Your task to perform on an android device: change the upload size in google photos Image 0: 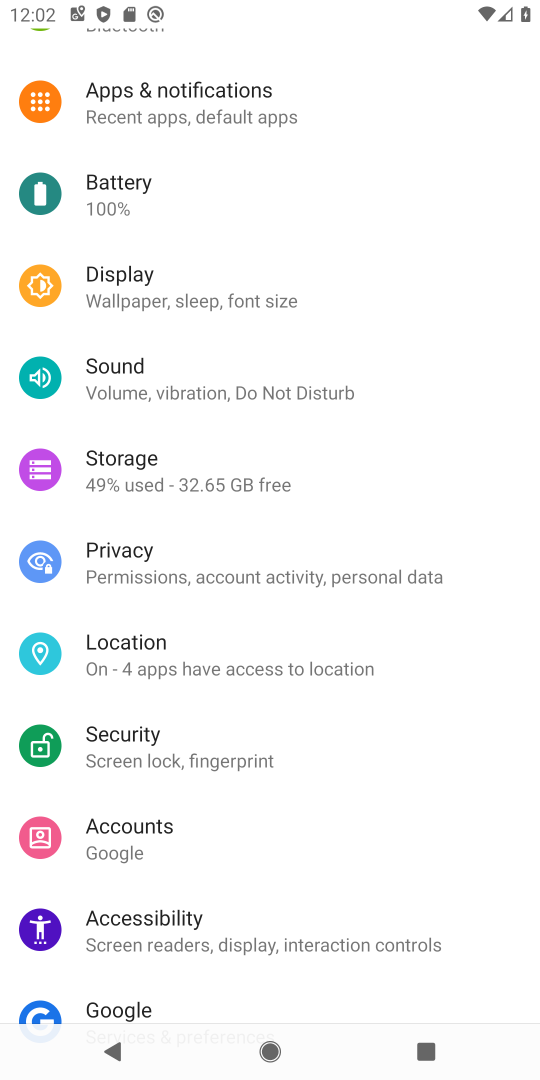
Step 0: press home button
Your task to perform on an android device: change the upload size in google photos Image 1: 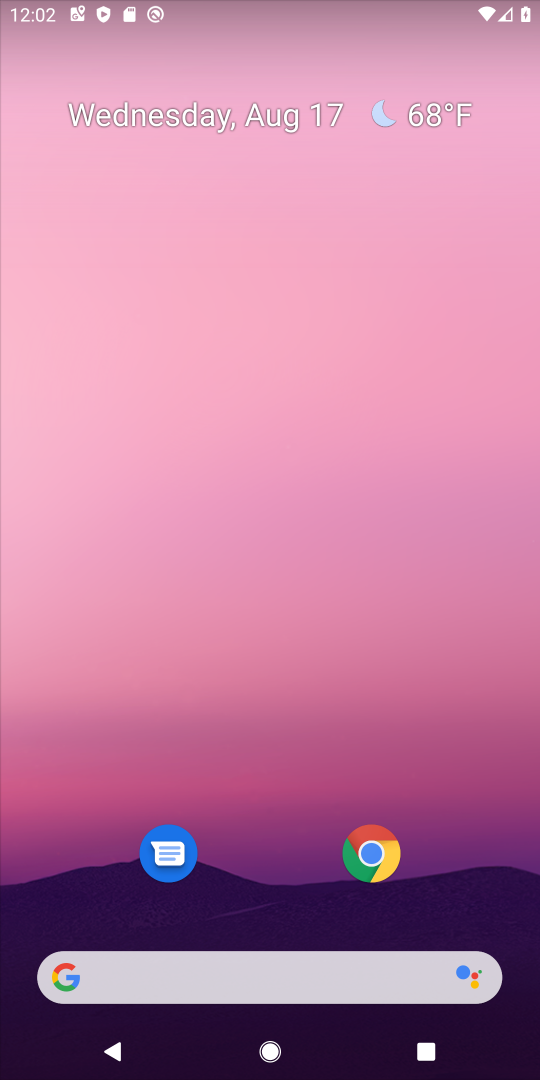
Step 1: drag from (158, 732) to (166, 340)
Your task to perform on an android device: change the upload size in google photos Image 2: 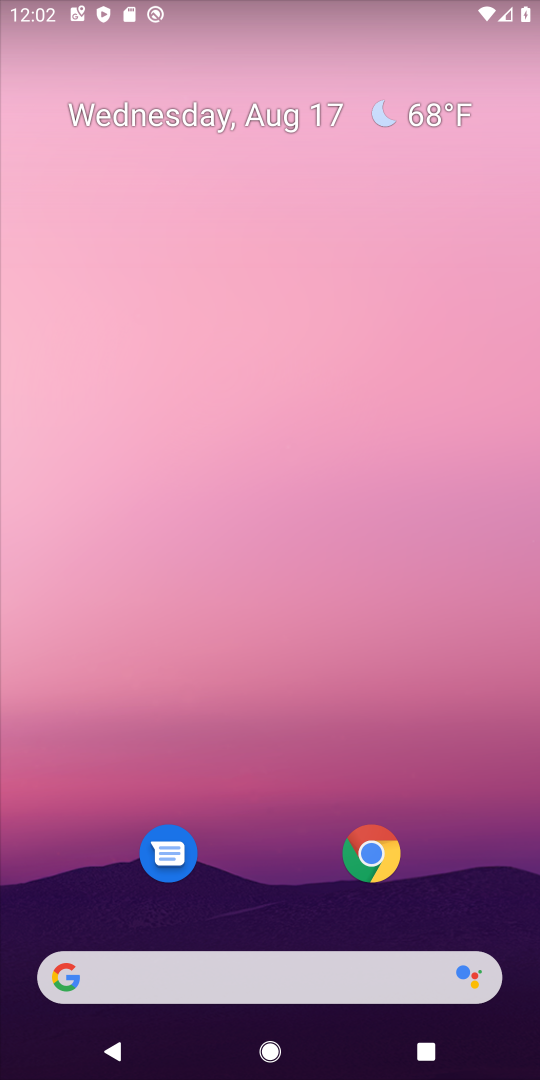
Step 2: drag from (267, 947) to (267, 555)
Your task to perform on an android device: change the upload size in google photos Image 3: 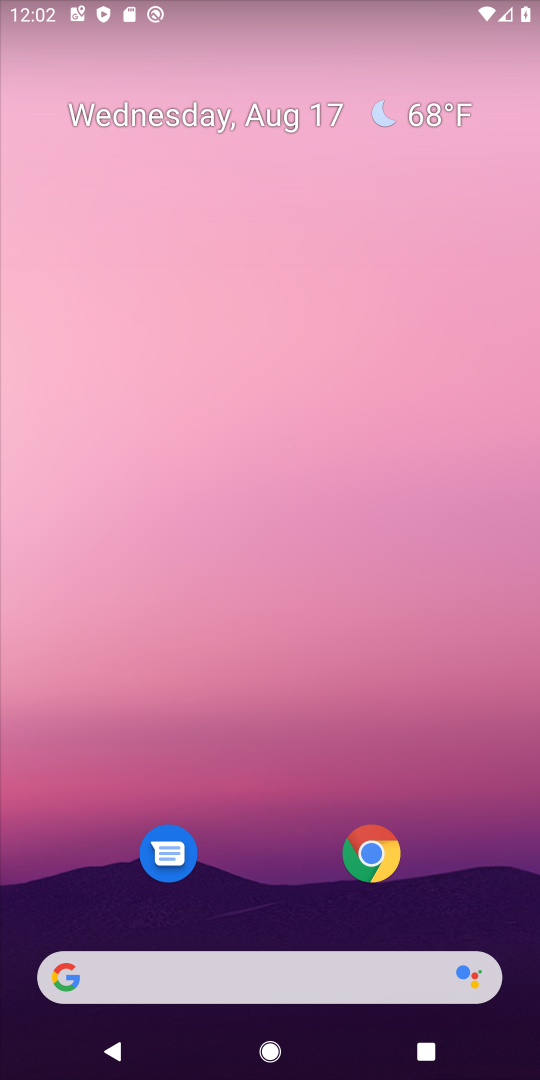
Step 3: drag from (241, 835) to (241, 395)
Your task to perform on an android device: change the upload size in google photos Image 4: 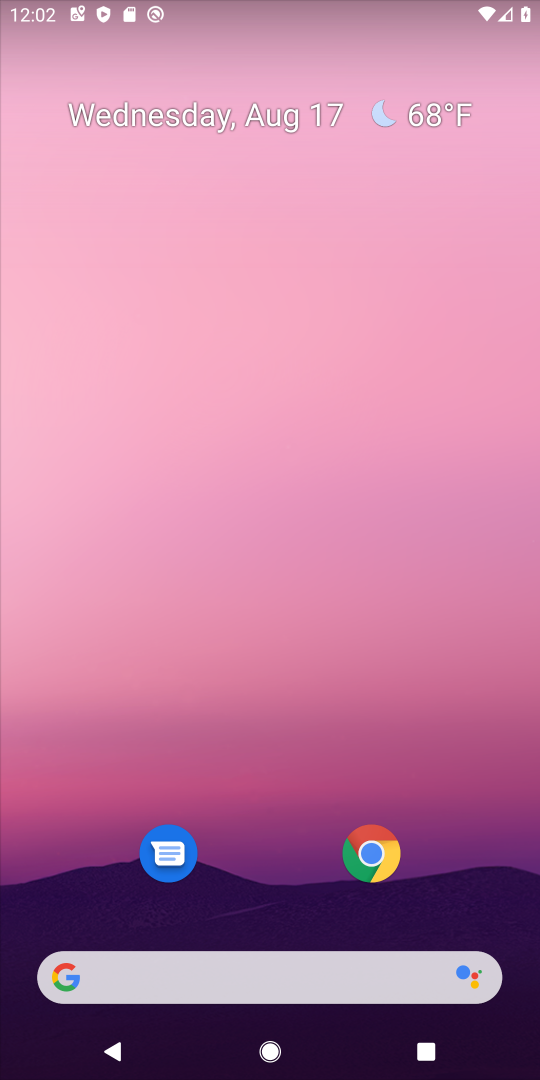
Step 4: drag from (228, 914) to (227, 226)
Your task to perform on an android device: change the upload size in google photos Image 5: 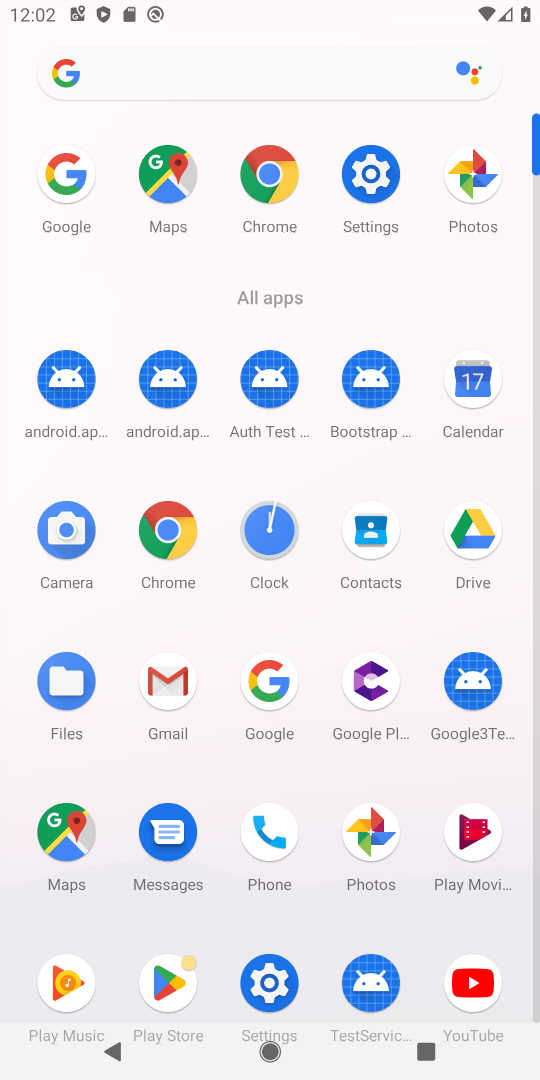
Step 5: click (381, 834)
Your task to perform on an android device: change the upload size in google photos Image 6: 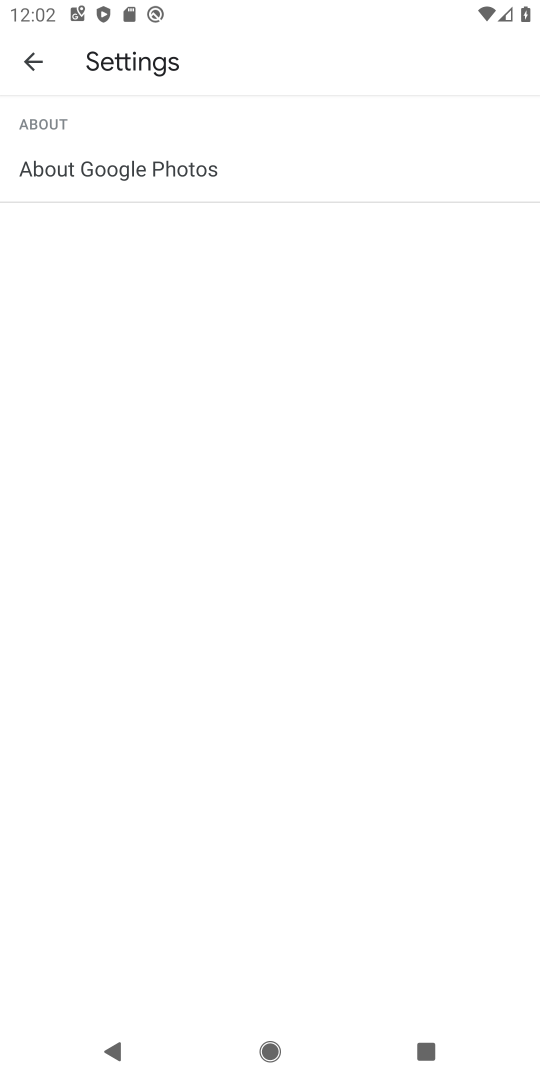
Step 6: click (24, 65)
Your task to perform on an android device: change the upload size in google photos Image 7: 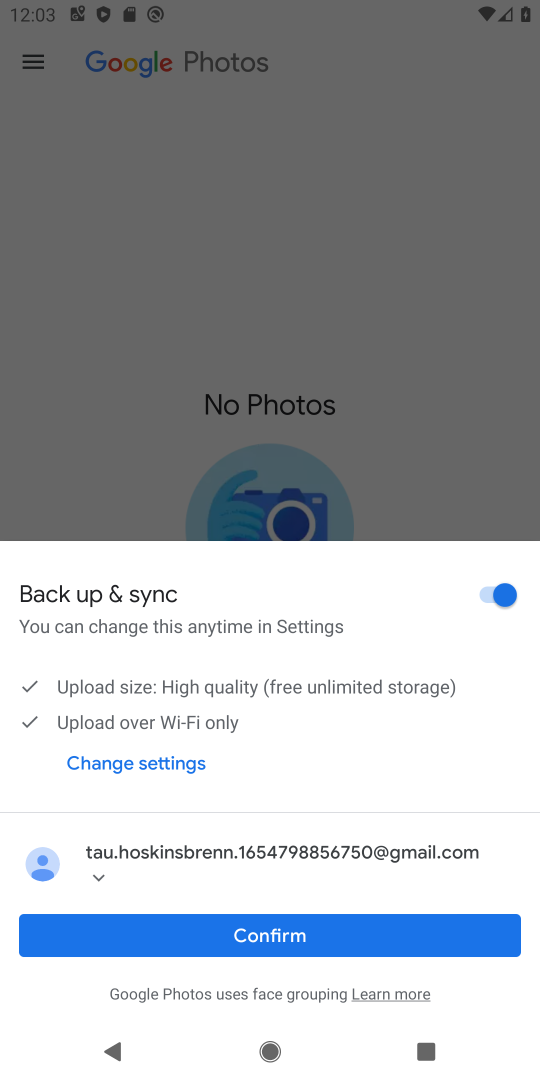
Step 7: click (189, 942)
Your task to perform on an android device: change the upload size in google photos Image 8: 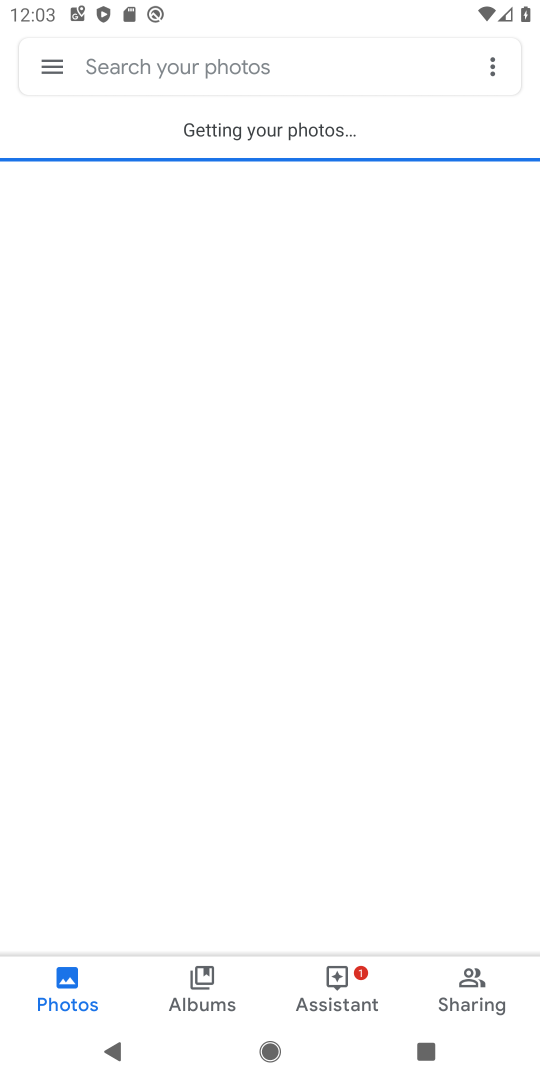
Step 8: click (46, 59)
Your task to perform on an android device: change the upload size in google photos Image 9: 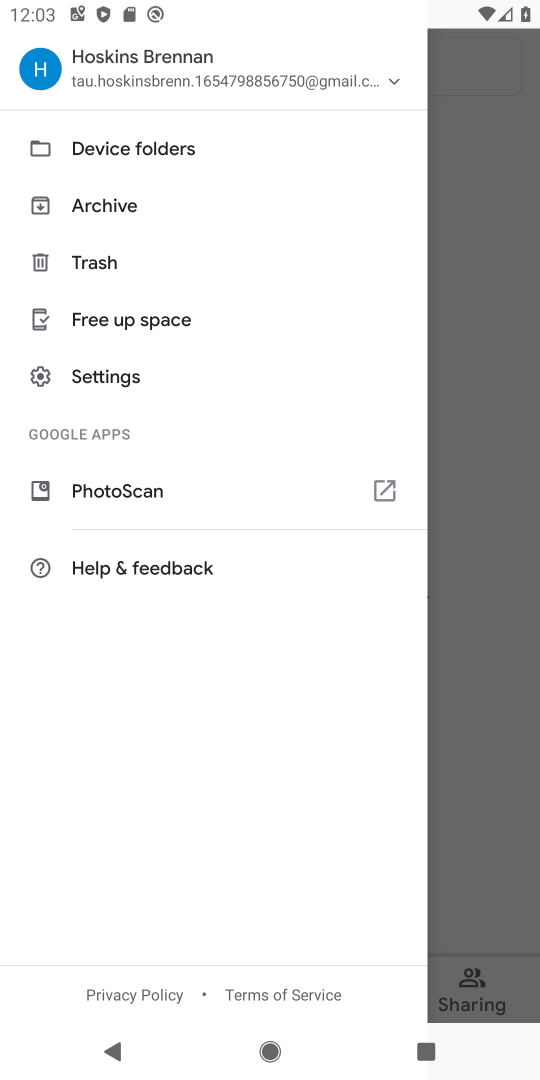
Step 9: click (102, 371)
Your task to perform on an android device: change the upload size in google photos Image 10: 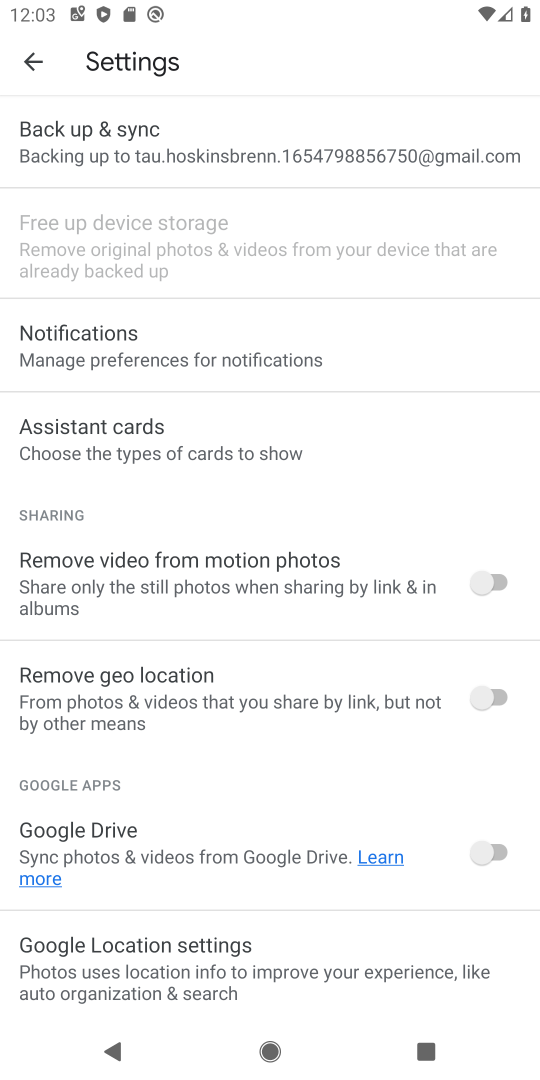
Step 10: click (170, 171)
Your task to perform on an android device: change the upload size in google photos Image 11: 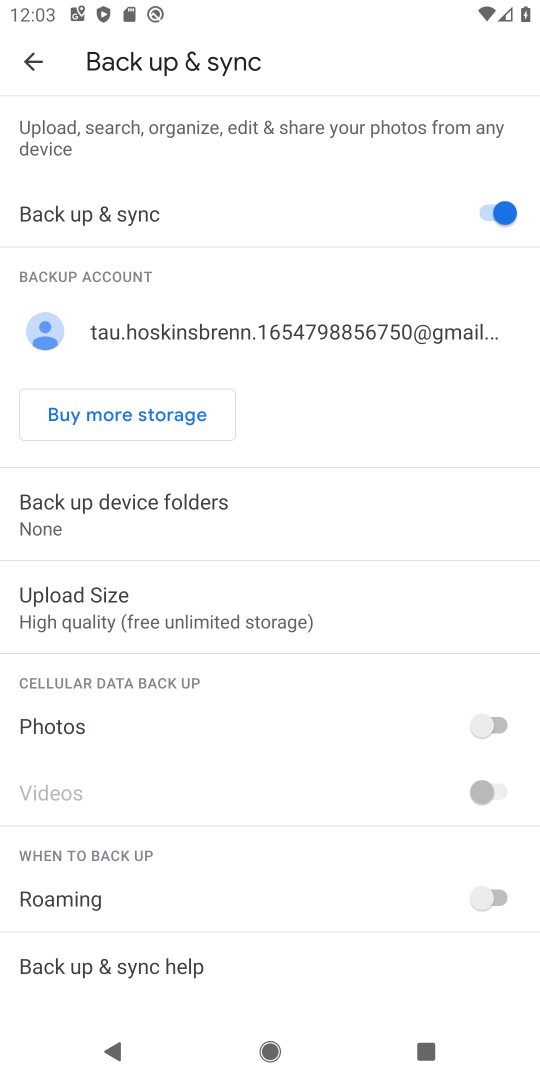
Step 11: click (80, 584)
Your task to perform on an android device: change the upload size in google photos Image 12: 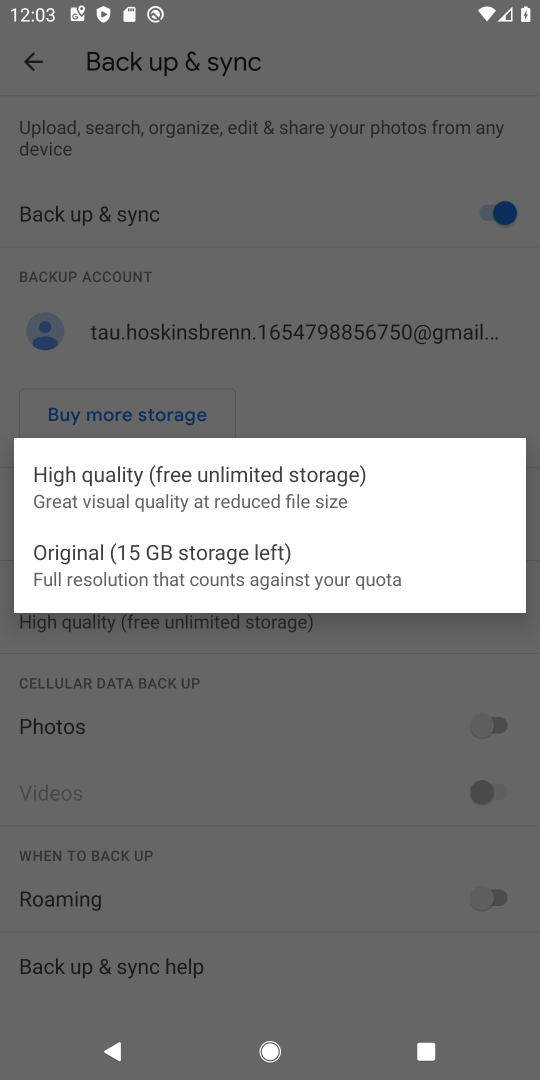
Step 12: click (159, 558)
Your task to perform on an android device: change the upload size in google photos Image 13: 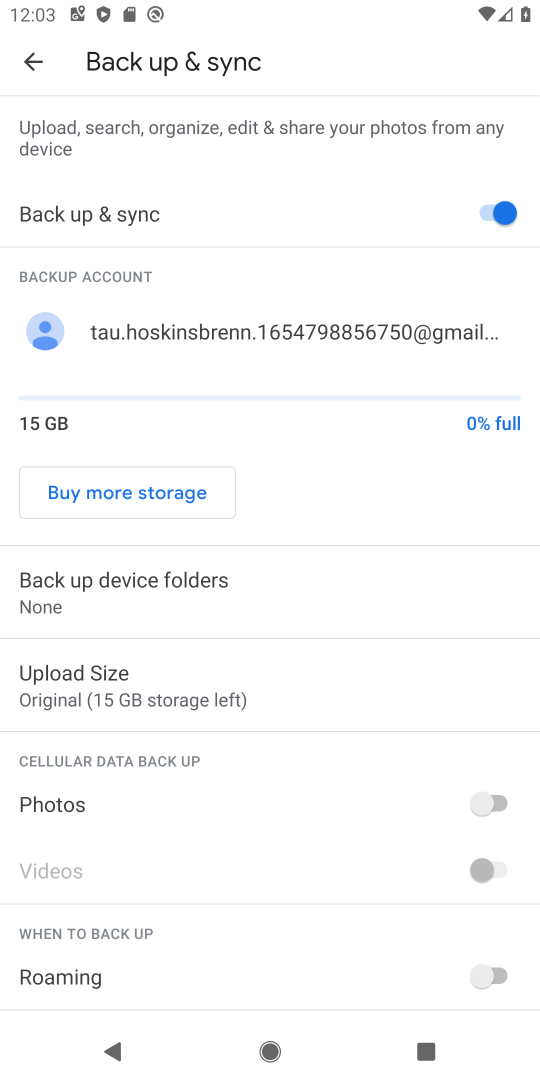
Step 13: task complete